Your task to perform on an android device: Turn off the flashlight Image 0: 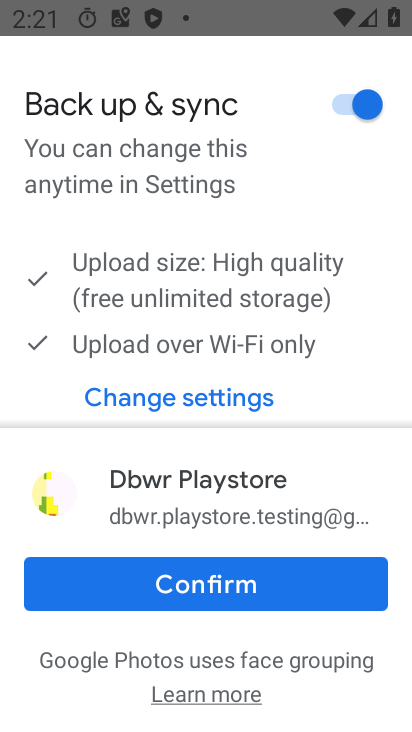
Step 0: press home button
Your task to perform on an android device: Turn off the flashlight Image 1: 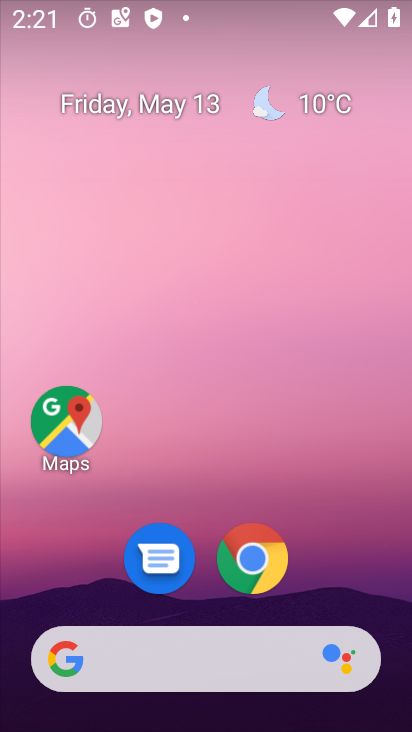
Step 1: drag from (207, 600) to (191, 213)
Your task to perform on an android device: Turn off the flashlight Image 2: 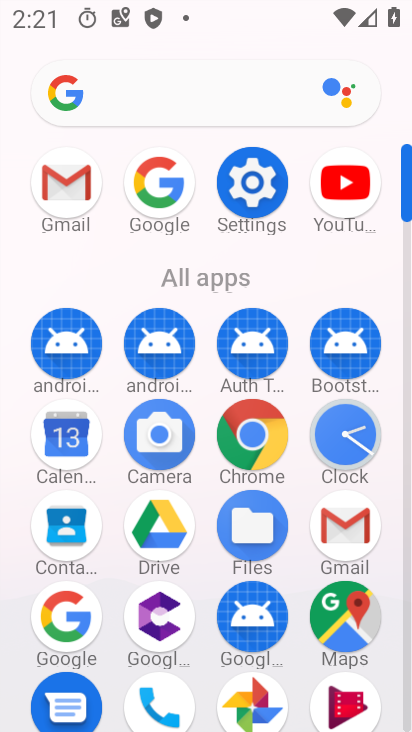
Step 2: click (271, 186)
Your task to perform on an android device: Turn off the flashlight Image 3: 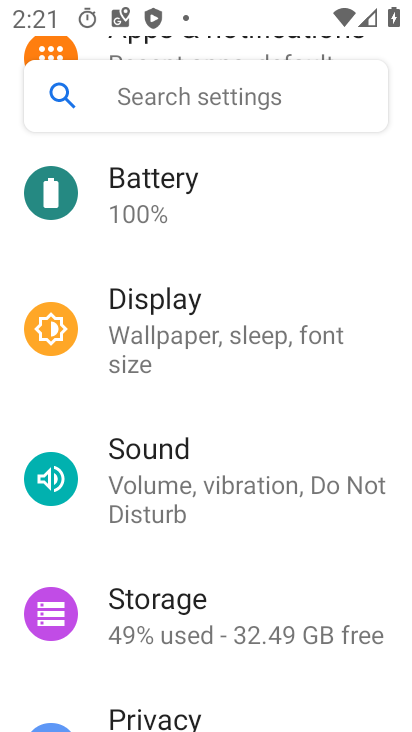
Step 3: task complete